Your task to perform on an android device: Go to location settings Image 0: 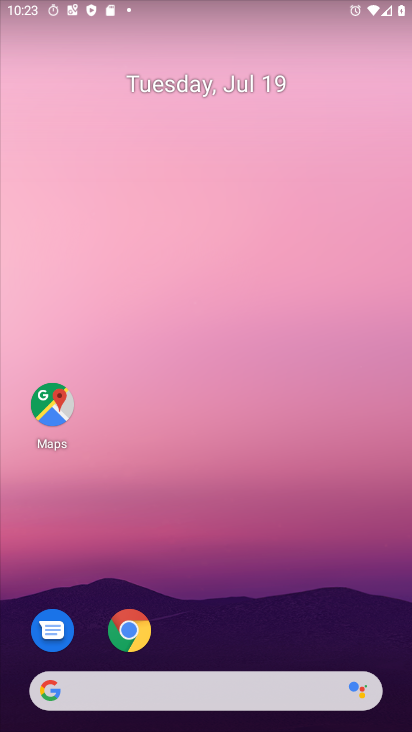
Step 0: press home button
Your task to perform on an android device: Go to location settings Image 1: 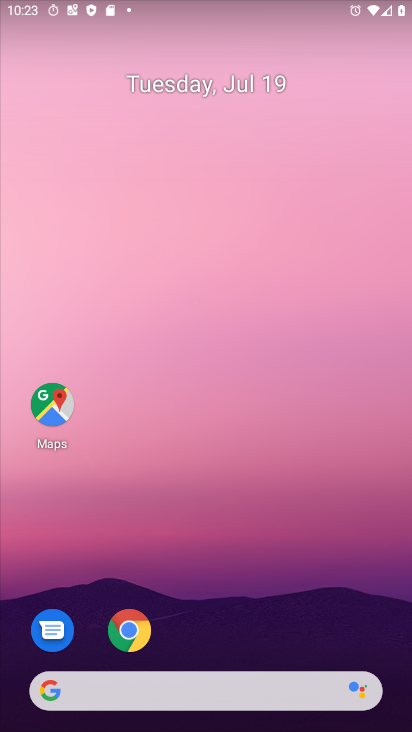
Step 1: drag from (257, 619) to (190, 5)
Your task to perform on an android device: Go to location settings Image 2: 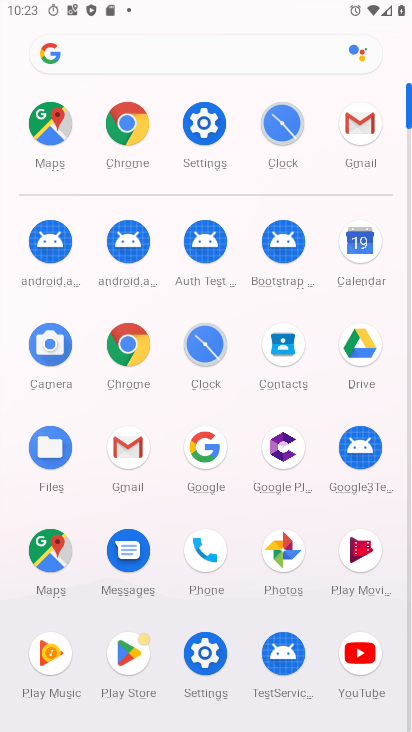
Step 2: click (196, 114)
Your task to perform on an android device: Go to location settings Image 3: 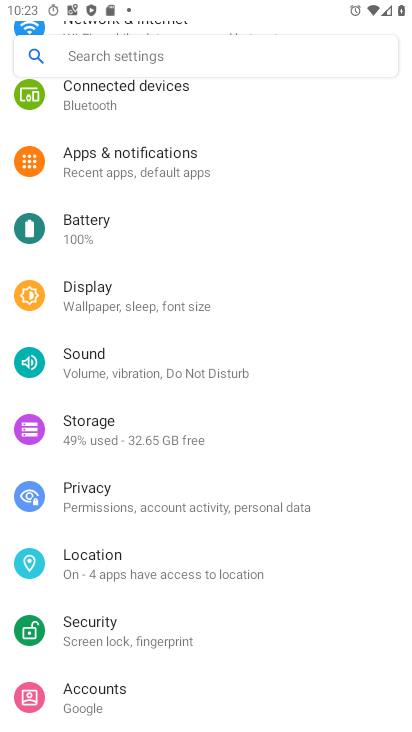
Step 3: click (75, 571)
Your task to perform on an android device: Go to location settings Image 4: 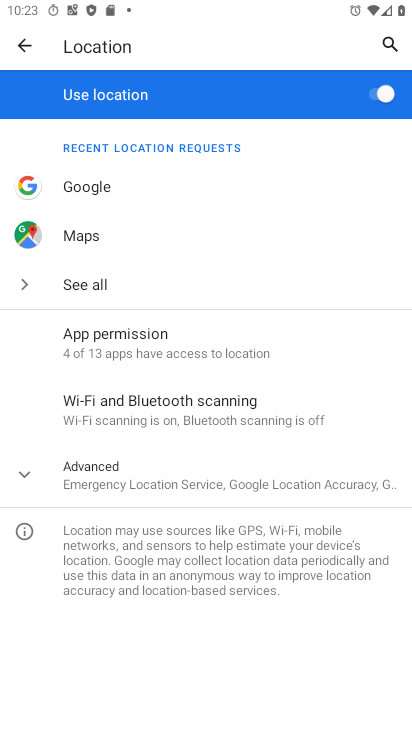
Step 4: task complete